Your task to perform on an android device: Go to CNN.com Image 0: 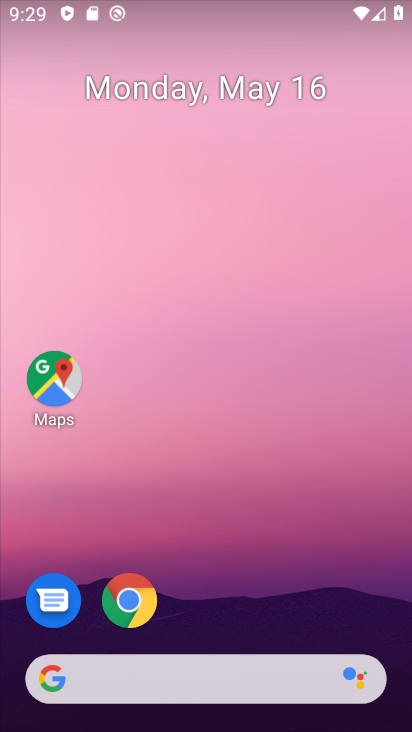
Step 0: click (126, 593)
Your task to perform on an android device: Go to CNN.com Image 1: 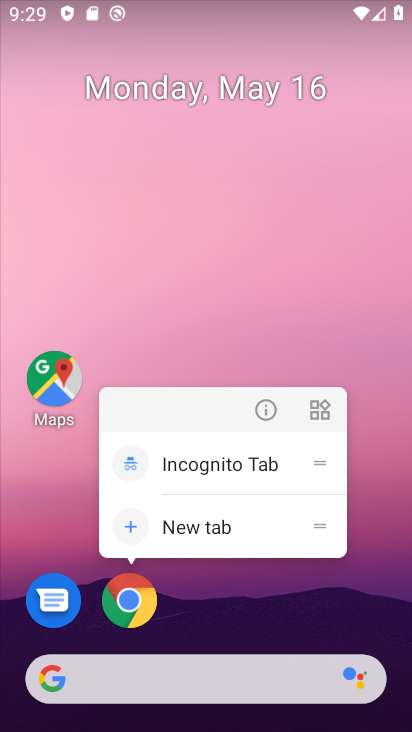
Step 1: click (131, 607)
Your task to perform on an android device: Go to CNN.com Image 2: 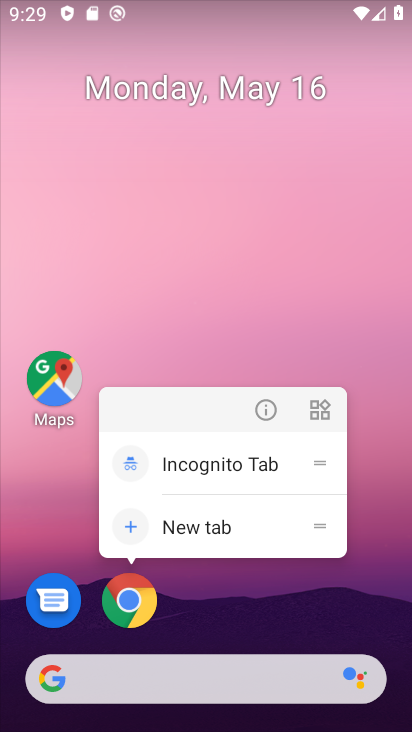
Step 2: click (129, 604)
Your task to perform on an android device: Go to CNN.com Image 3: 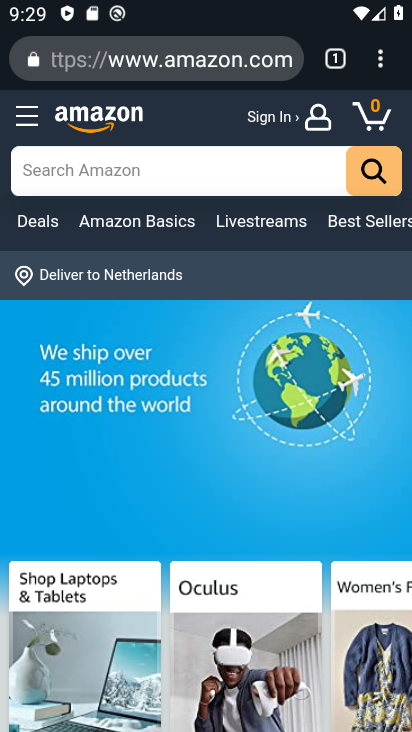
Step 3: click (240, 61)
Your task to perform on an android device: Go to CNN.com Image 4: 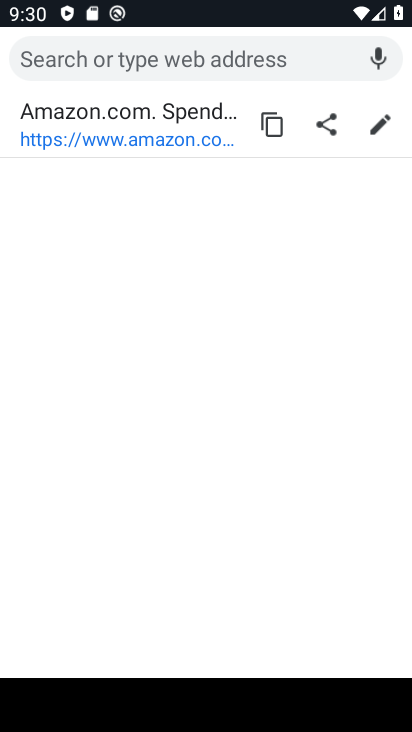
Step 4: type "cnn.com"
Your task to perform on an android device: Go to CNN.com Image 5: 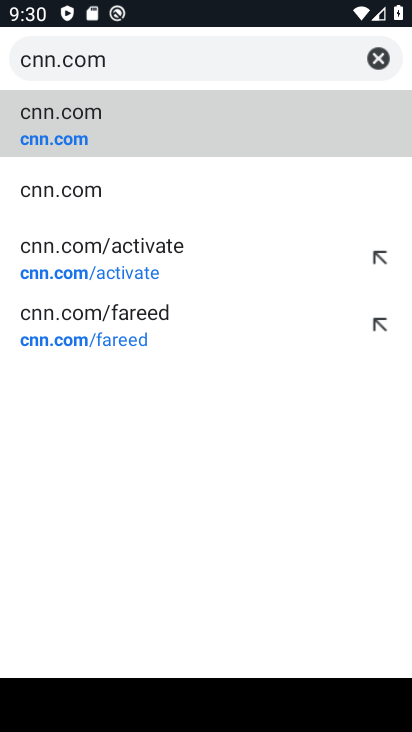
Step 5: click (72, 138)
Your task to perform on an android device: Go to CNN.com Image 6: 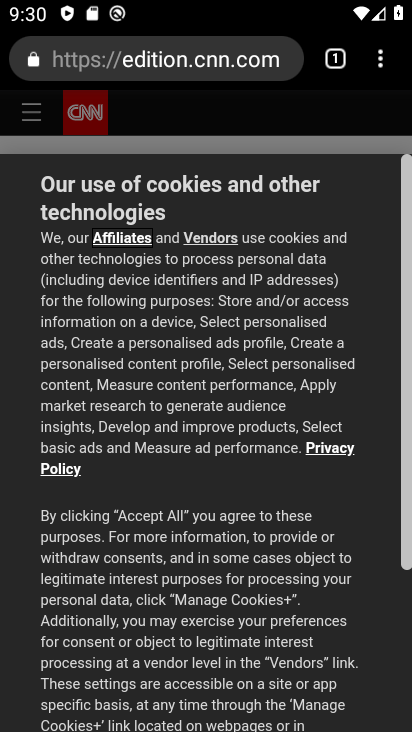
Step 6: task complete